Your task to perform on an android device: What is the news today? Image 0: 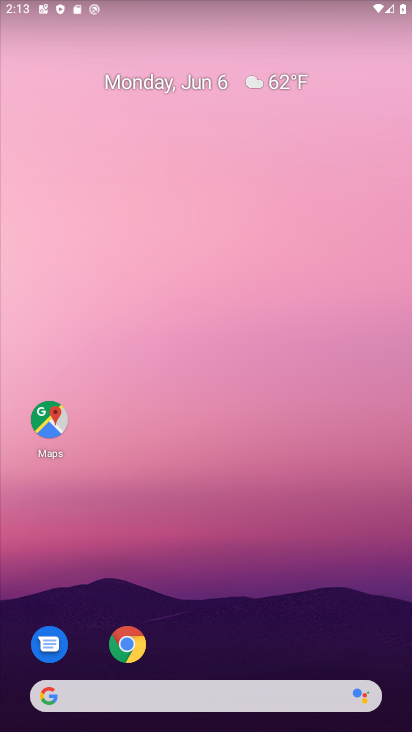
Step 0: click (181, 702)
Your task to perform on an android device: What is the news today? Image 1: 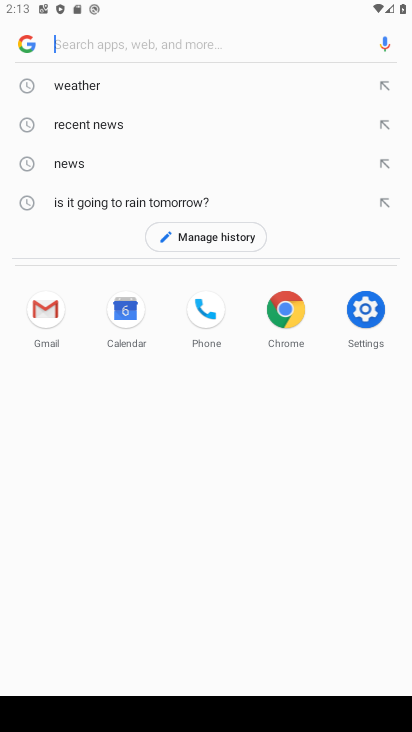
Step 1: click (96, 168)
Your task to perform on an android device: What is the news today? Image 2: 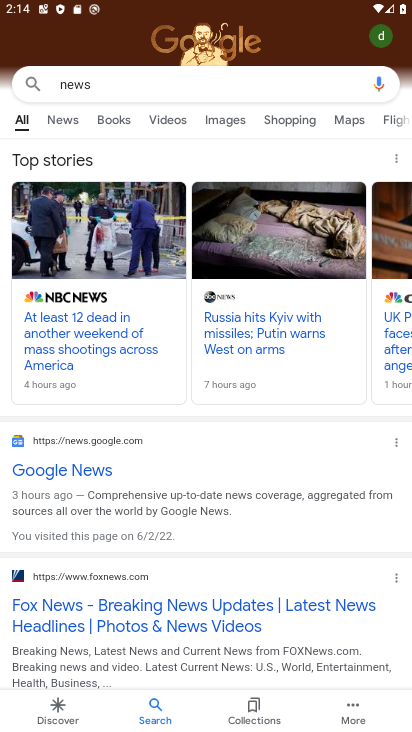
Step 2: click (87, 327)
Your task to perform on an android device: What is the news today? Image 3: 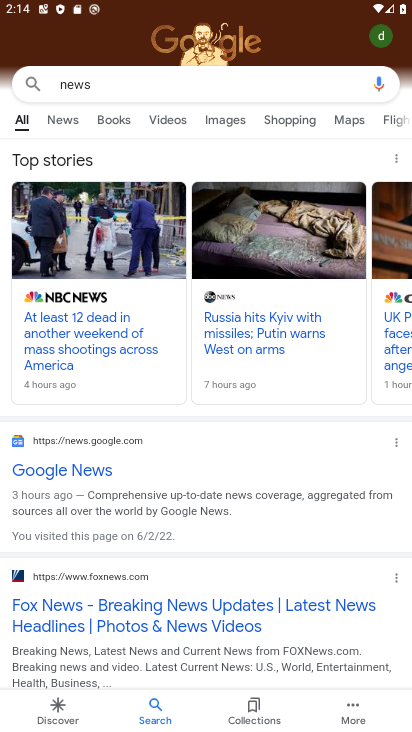
Step 3: click (90, 336)
Your task to perform on an android device: What is the news today? Image 4: 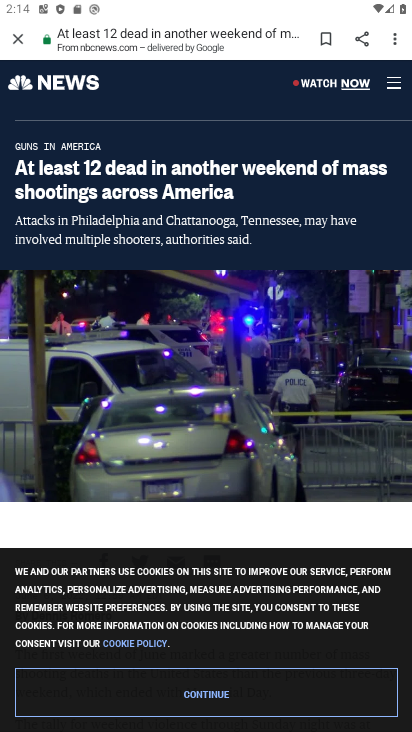
Step 4: click (212, 699)
Your task to perform on an android device: What is the news today? Image 5: 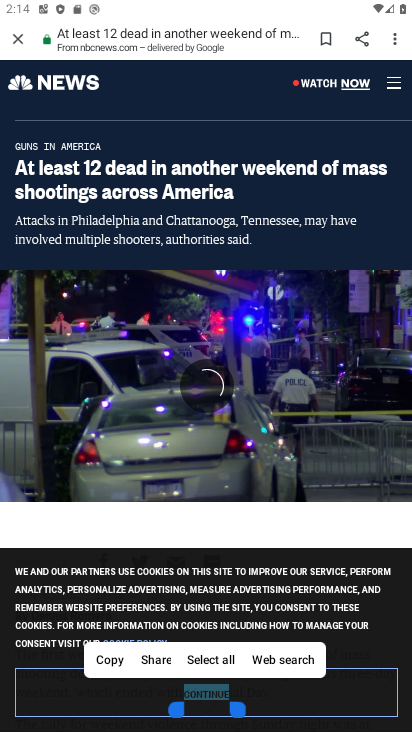
Step 5: click (303, 702)
Your task to perform on an android device: What is the news today? Image 6: 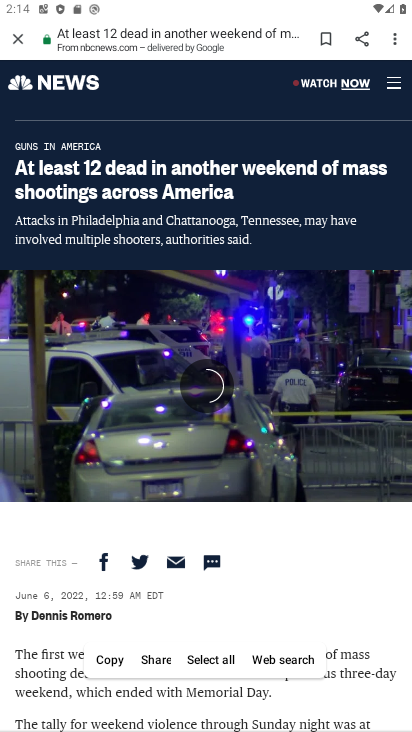
Step 6: click (331, 511)
Your task to perform on an android device: What is the news today? Image 7: 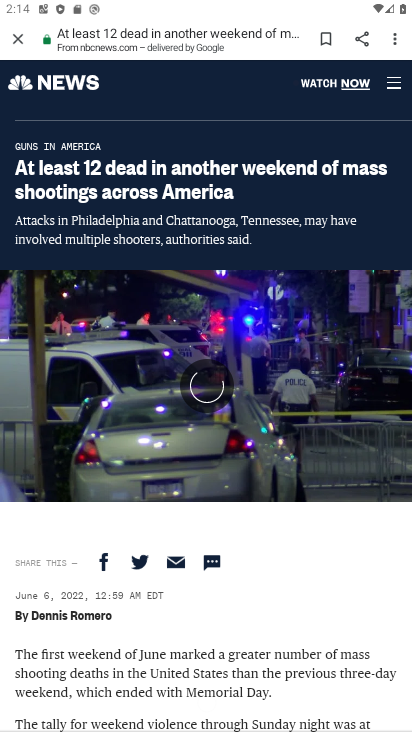
Step 7: task complete